Your task to perform on an android device: turn off picture-in-picture Image 0: 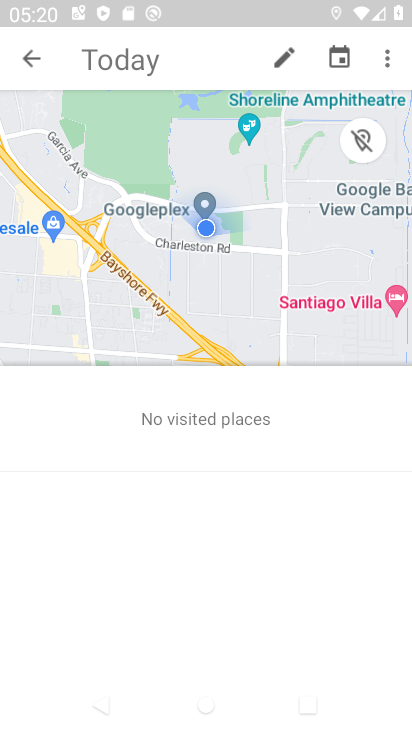
Step 0: press home button
Your task to perform on an android device: turn off picture-in-picture Image 1: 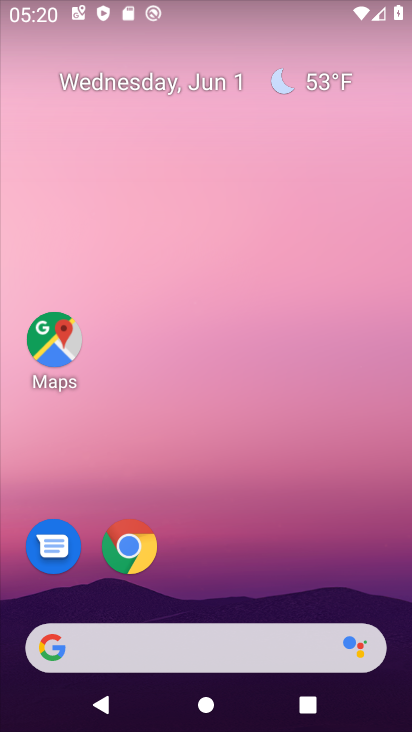
Step 1: drag from (252, 539) to (208, 46)
Your task to perform on an android device: turn off picture-in-picture Image 2: 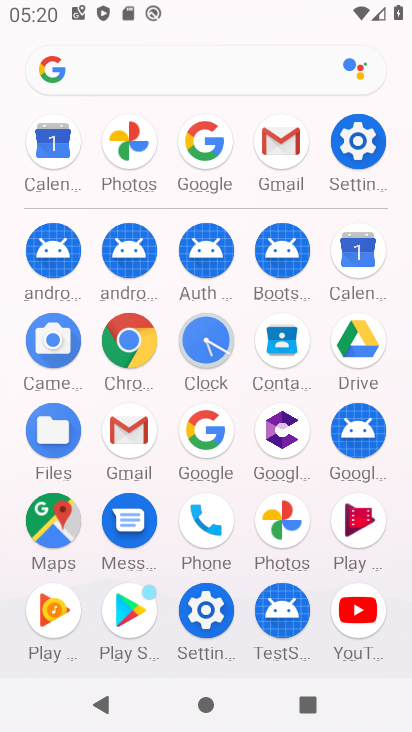
Step 2: click (355, 144)
Your task to perform on an android device: turn off picture-in-picture Image 3: 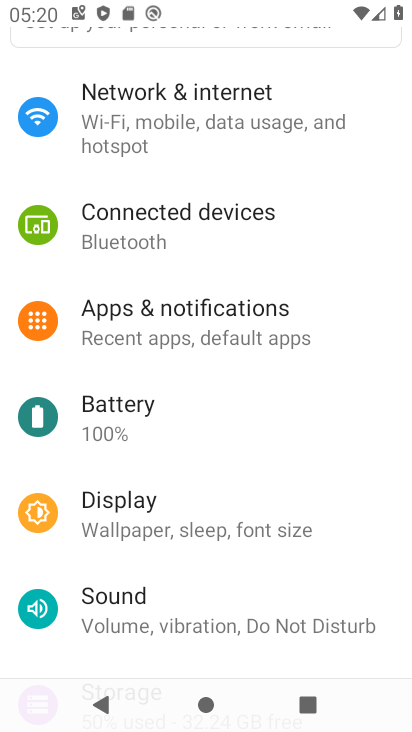
Step 3: drag from (223, 579) to (197, 427)
Your task to perform on an android device: turn off picture-in-picture Image 4: 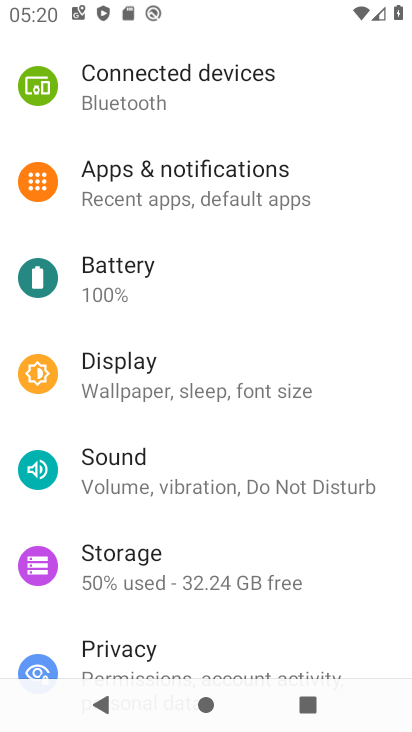
Step 4: click (165, 162)
Your task to perform on an android device: turn off picture-in-picture Image 5: 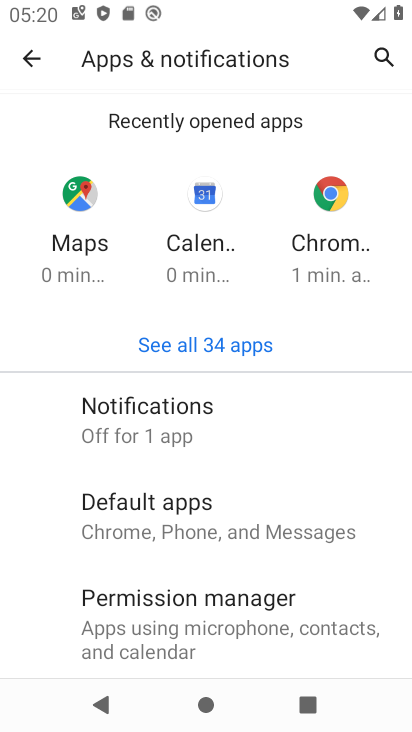
Step 5: drag from (222, 560) to (195, 359)
Your task to perform on an android device: turn off picture-in-picture Image 6: 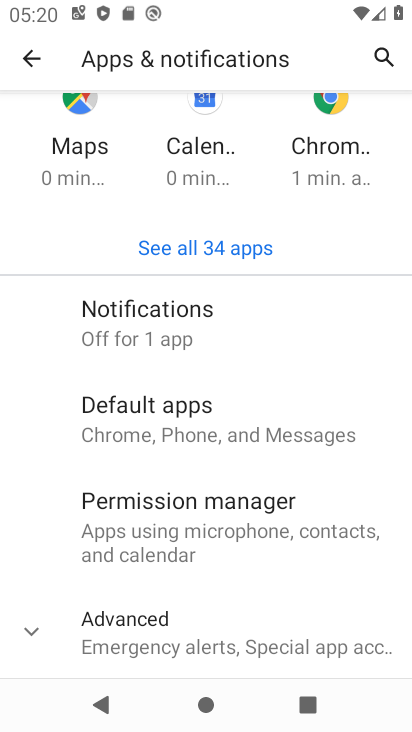
Step 6: click (36, 633)
Your task to perform on an android device: turn off picture-in-picture Image 7: 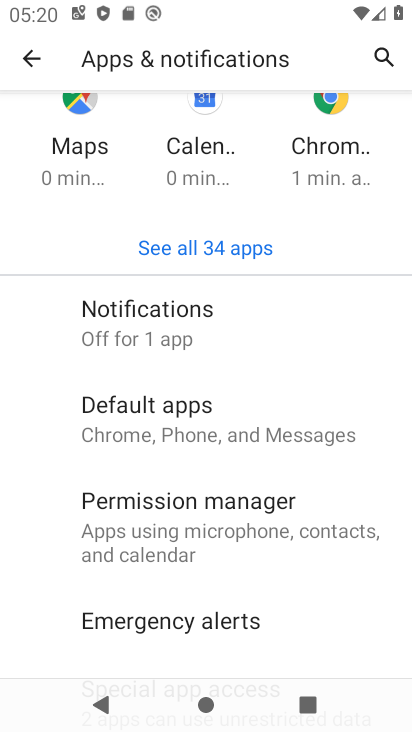
Step 7: drag from (254, 573) to (215, 304)
Your task to perform on an android device: turn off picture-in-picture Image 8: 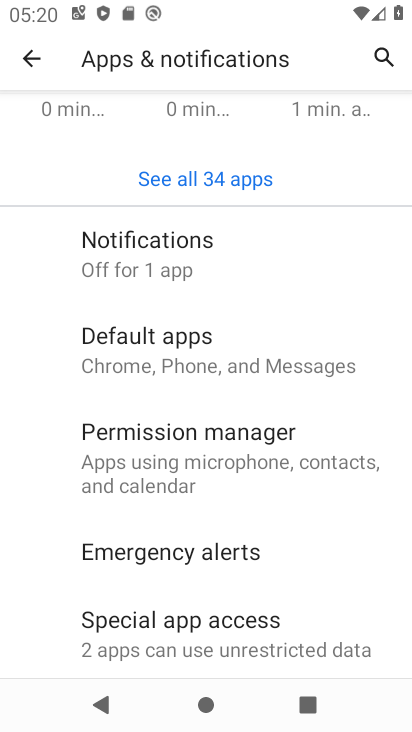
Step 8: drag from (295, 580) to (232, 267)
Your task to perform on an android device: turn off picture-in-picture Image 9: 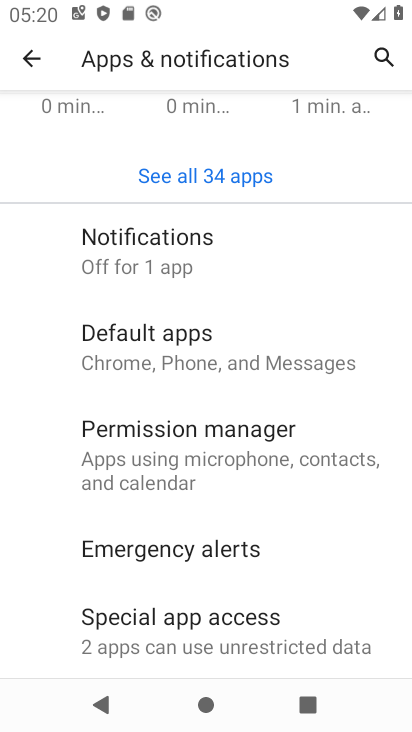
Step 9: click (125, 622)
Your task to perform on an android device: turn off picture-in-picture Image 10: 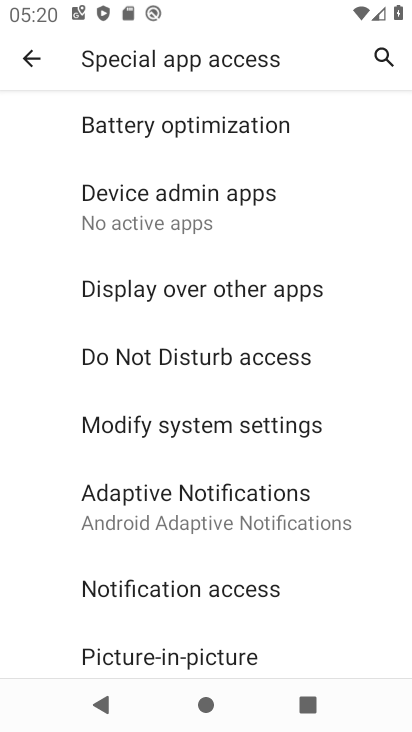
Step 10: click (182, 652)
Your task to perform on an android device: turn off picture-in-picture Image 11: 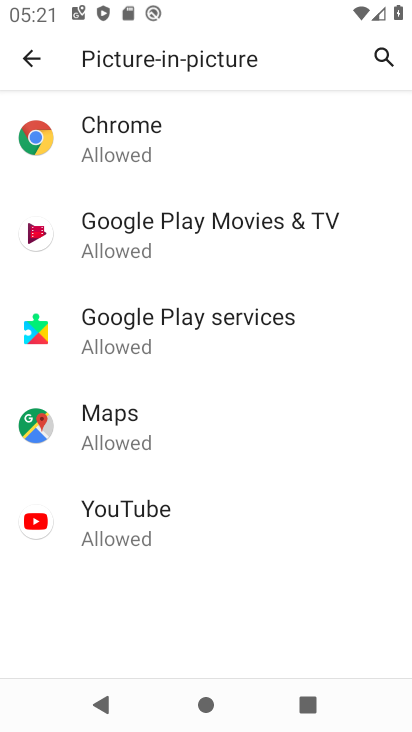
Step 11: click (128, 135)
Your task to perform on an android device: turn off picture-in-picture Image 12: 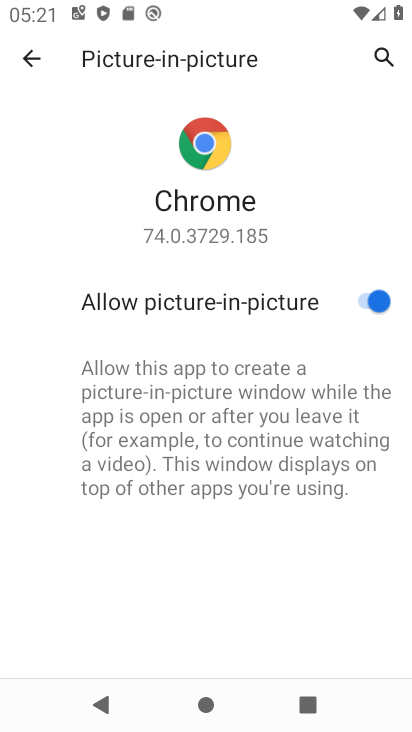
Step 12: click (365, 302)
Your task to perform on an android device: turn off picture-in-picture Image 13: 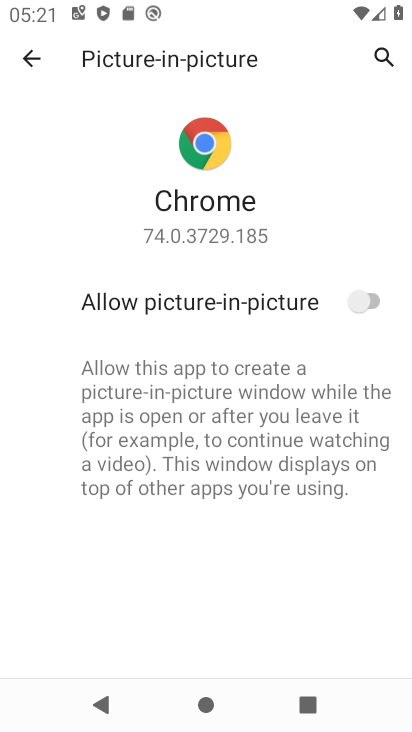
Step 13: click (28, 54)
Your task to perform on an android device: turn off picture-in-picture Image 14: 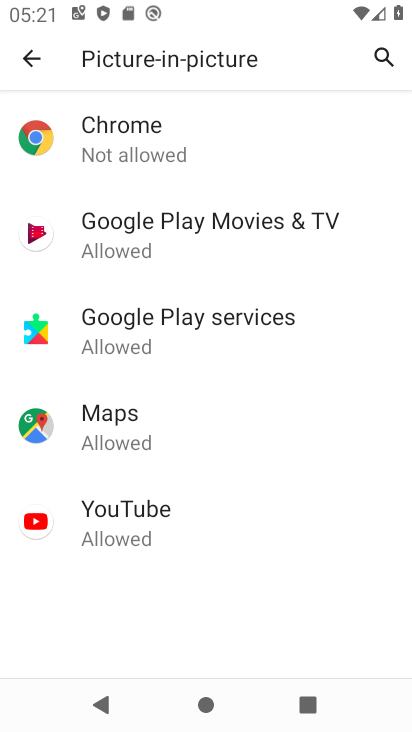
Step 14: click (118, 245)
Your task to perform on an android device: turn off picture-in-picture Image 15: 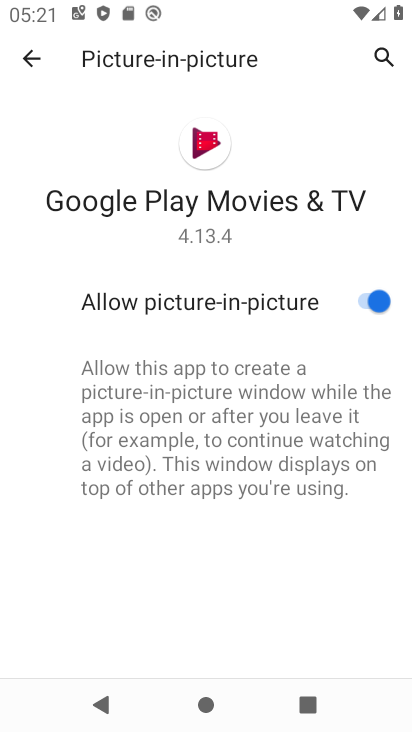
Step 15: click (375, 310)
Your task to perform on an android device: turn off picture-in-picture Image 16: 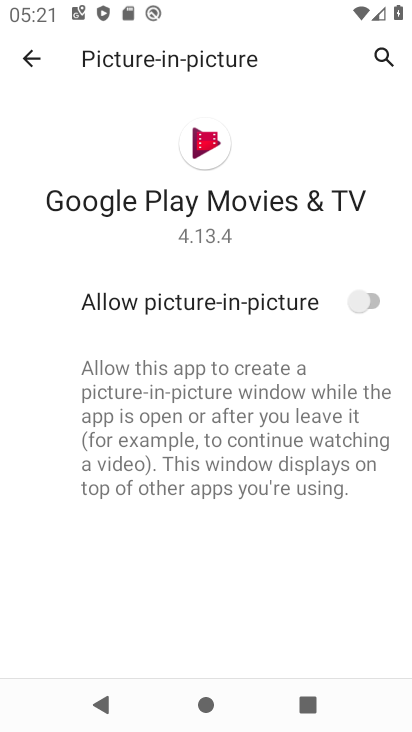
Step 16: click (23, 48)
Your task to perform on an android device: turn off picture-in-picture Image 17: 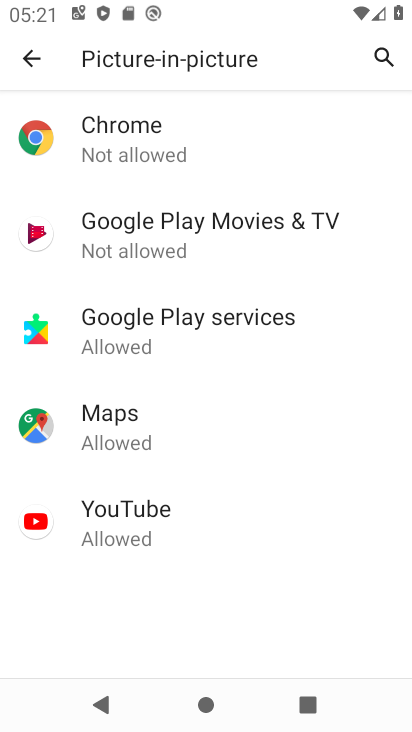
Step 17: click (108, 330)
Your task to perform on an android device: turn off picture-in-picture Image 18: 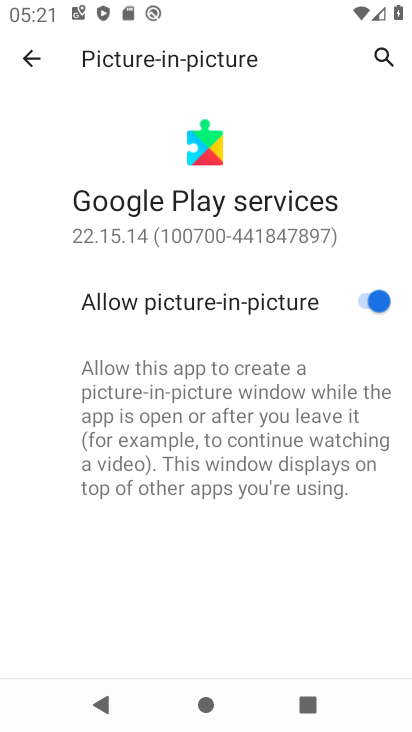
Step 18: click (373, 300)
Your task to perform on an android device: turn off picture-in-picture Image 19: 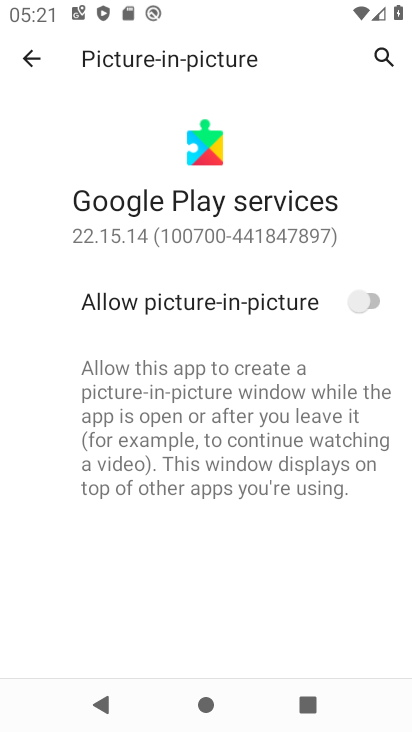
Step 19: click (24, 70)
Your task to perform on an android device: turn off picture-in-picture Image 20: 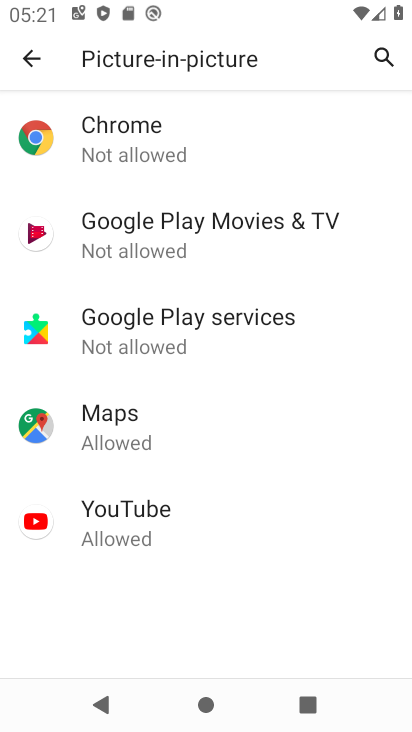
Step 20: click (109, 424)
Your task to perform on an android device: turn off picture-in-picture Image 21: 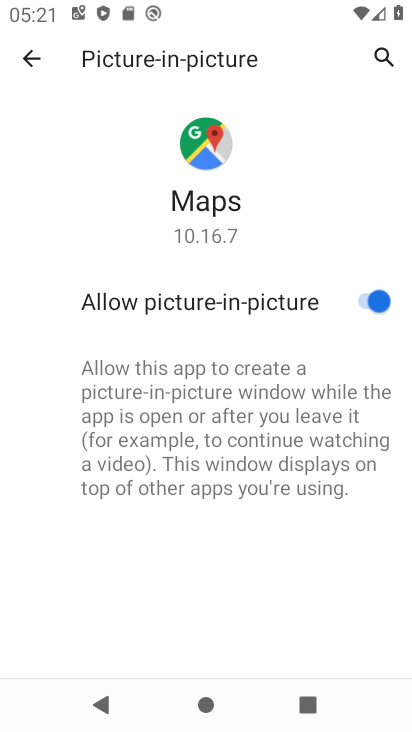
Step 21: click (379, 309)
Your task to perform on an android device: turn off picture-in-picture Image 22: 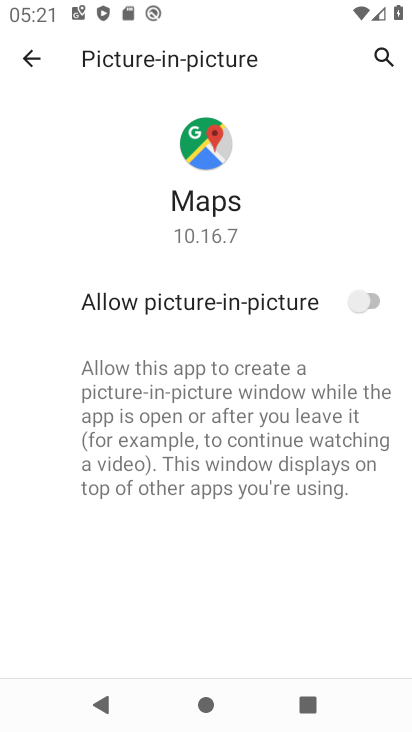
Step 22: click (31, 69)
Your task to perform on an android device: turn off picture-in-picture Image 23: 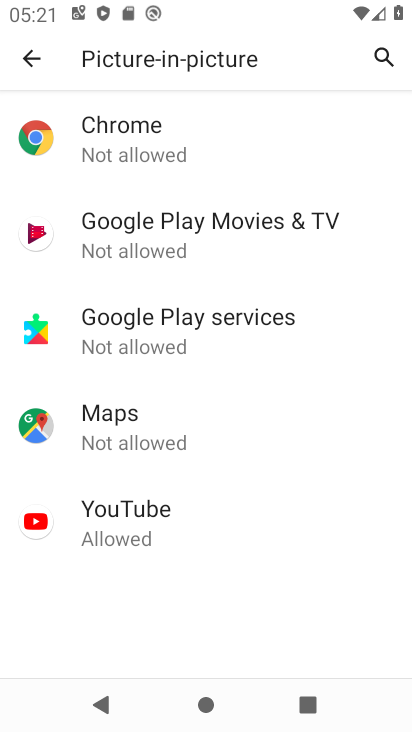
Step 23: click (134, 506)
Your task to perform on an android device: turn off picture-in-picture Image 24: 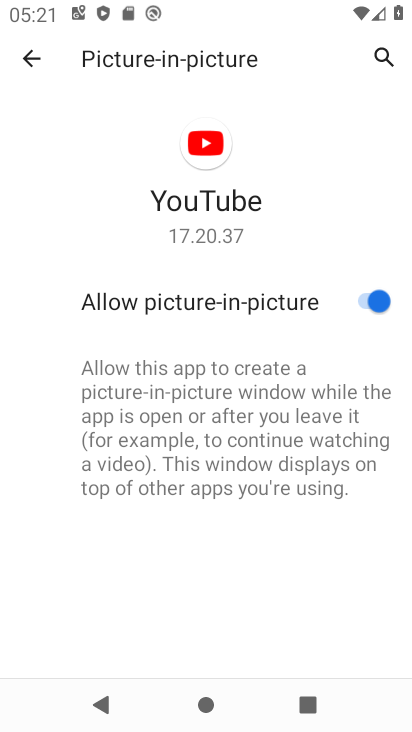
Step 24: click (378, 302)
Your task to perform on an android device: turn off picture-in-picture Image 25: 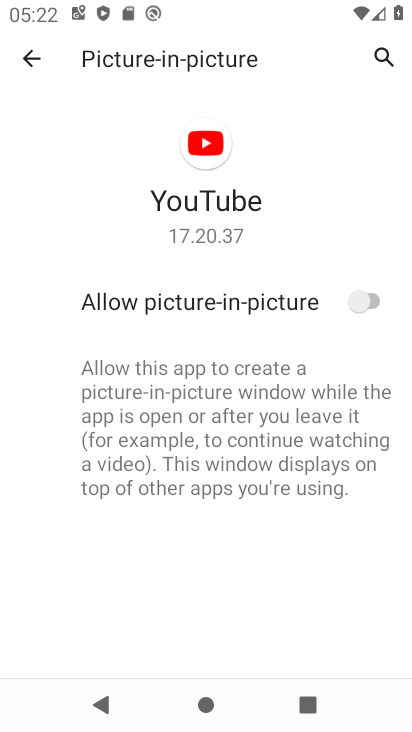
Step 25: click (32, 56)
Your task to perform on an android device: turn off picture-in-picture Image 26: 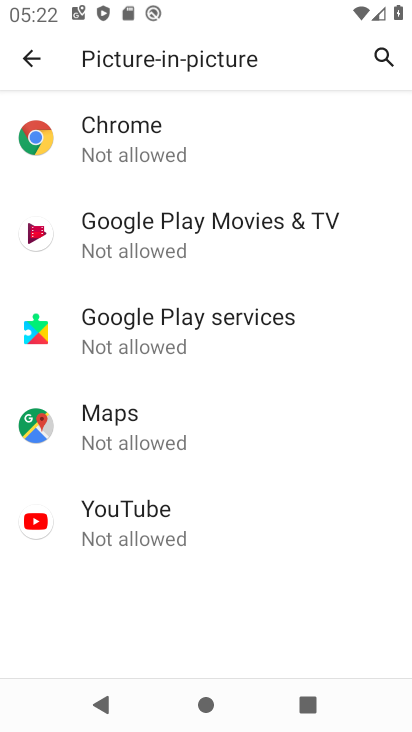
Step 26: task complete